Your task to perform on an android device: Open Yahoo.com Image 0: 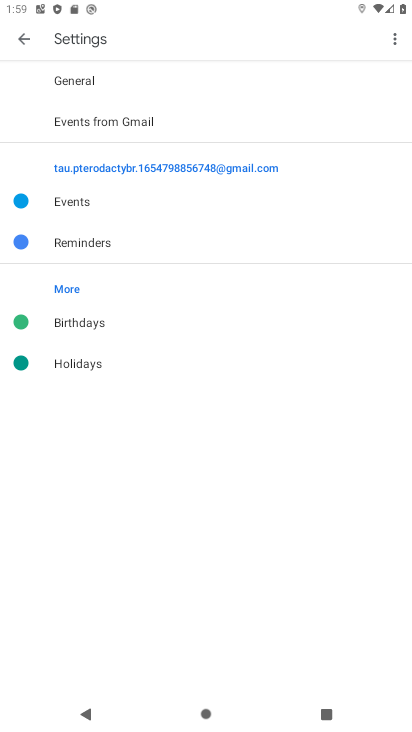
Step 0: press home button
Your task to perform on an android device: Open Yahoo.com Image 1: 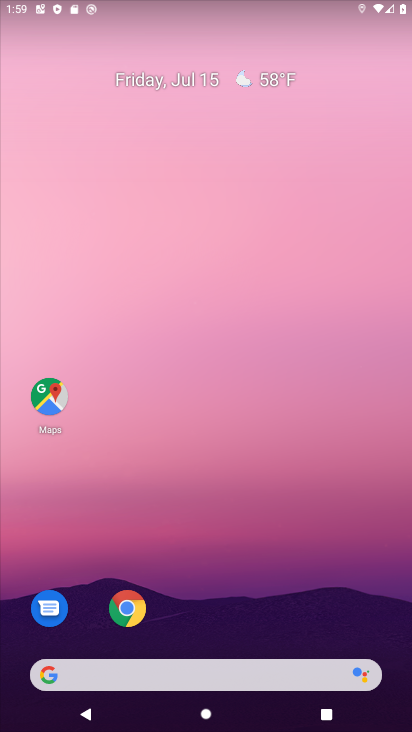
Step 1: drag from (284, 570) to (405, 3)
Your task to perform on an android device: Open Yahoo.com Image 2: 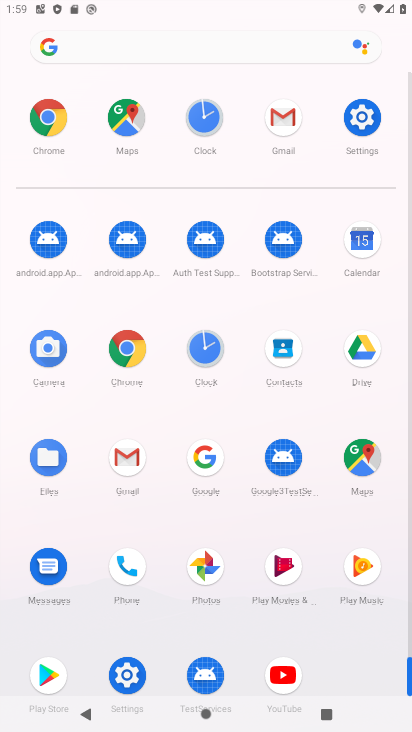
Step 2: click (120, 360)
Your task to perform on an android device: Open Yahoo.com Image 3: 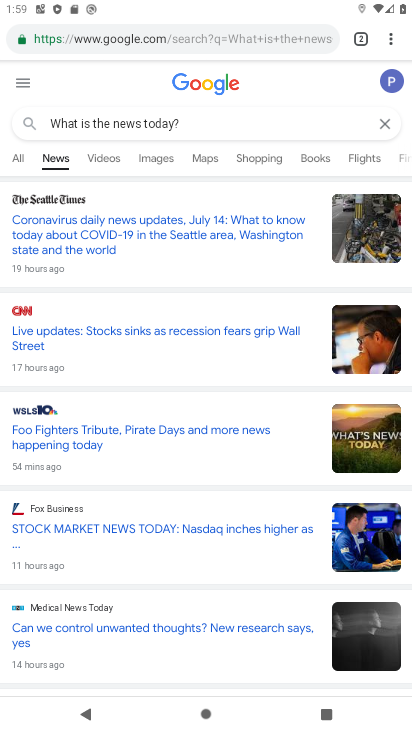
Step 3: click (207, 38)
Your task to perform on an android device: Open Yahoo.com Image 4: 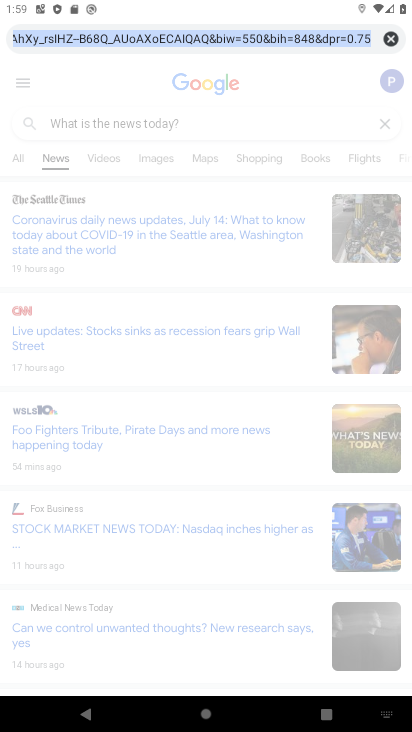
Step 4: click (384, 30)
Your task to perform on an android device: Open Yahoo.com Image 5: 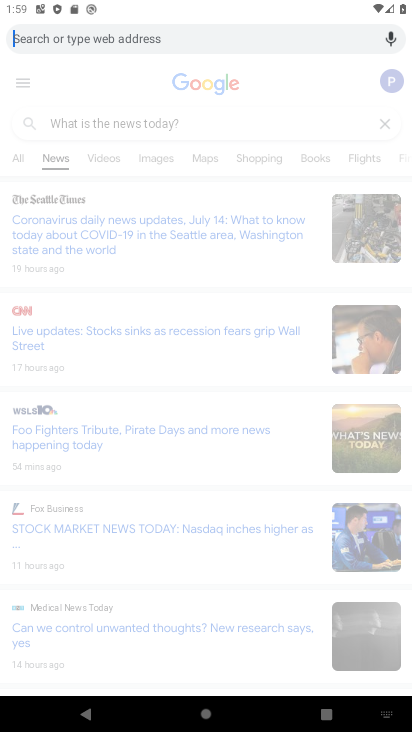
Step 5: type " Yahoo.com"
Your task to perform on an android device: Open Yahoo.com Image 6: 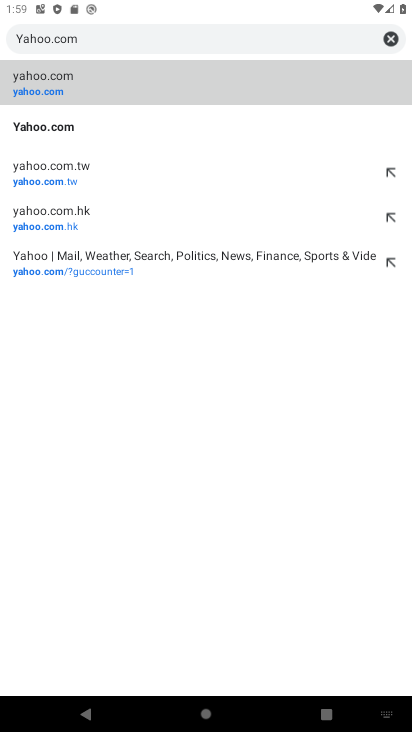
Step 6: click (43, 89)
Your task to perform on an android device: Open Yahoo.com Image 7: 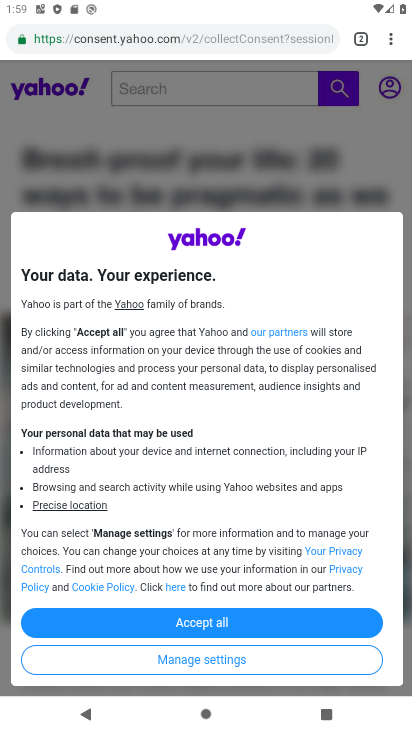
Step 7: click (121, 621)
Your task to perform on an android device: Open Yahoo.com Image 8: 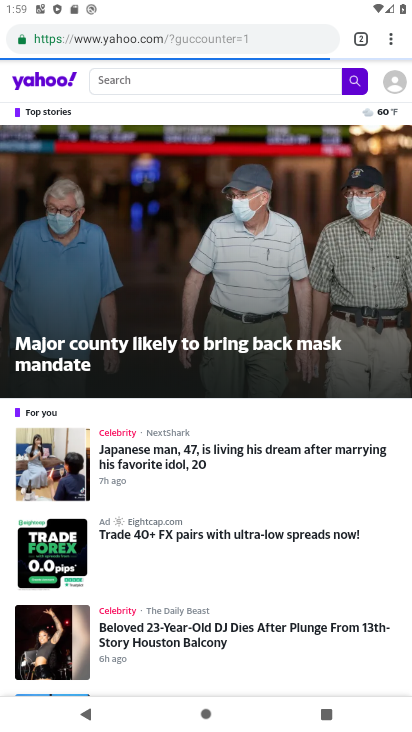
Step 8: task complete